Your task to perform on an android device: Open the calendar and show me this week's events Image 0: 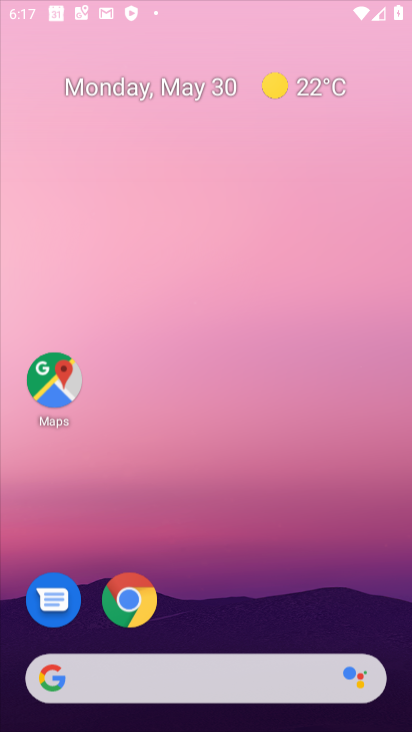
Step 0: press home button
Your task to perform on an android device: Open the calendar and show me this week's events Image 1: 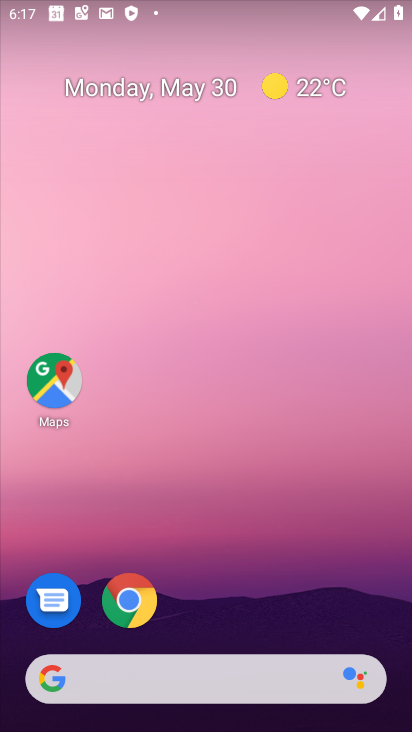
Step 1: drag from (236, 620) to (279, 110)
Your task to perform on an android device: Open the calendar and show me this week's events Image 2: 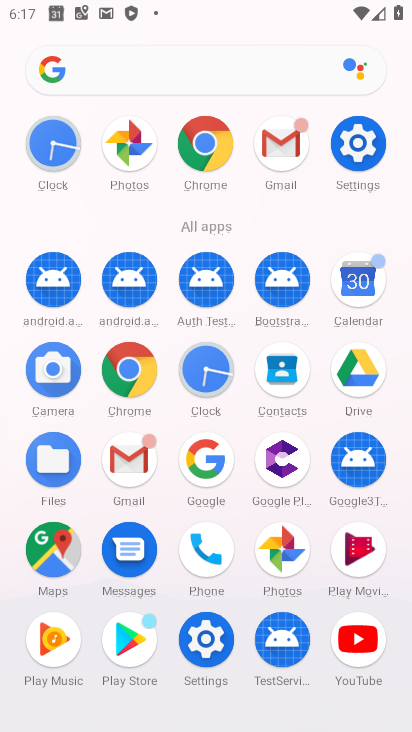
Step 2: click (361, 301)
Your task to perform on an android device: Open the calendar and show me this week's events Image 3: 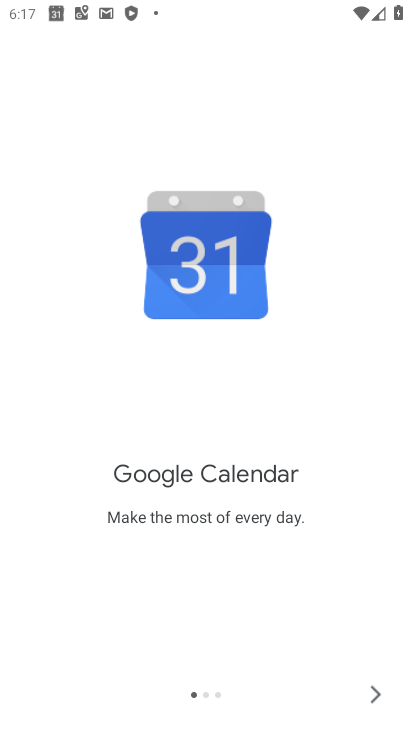
Step 3: click (379, 692)
Your task to perform on an android device: Open the calendar and show me this week's events Image 4: 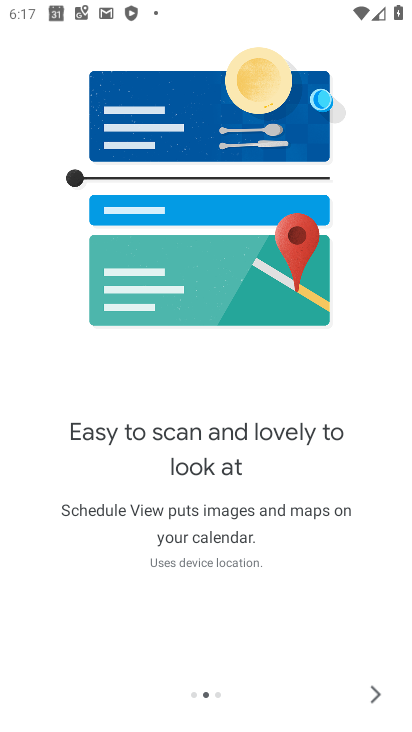
Step 4: click (381, 706)
Your task to perform on an android device: Open the calendar and show me this week's events Image 5: 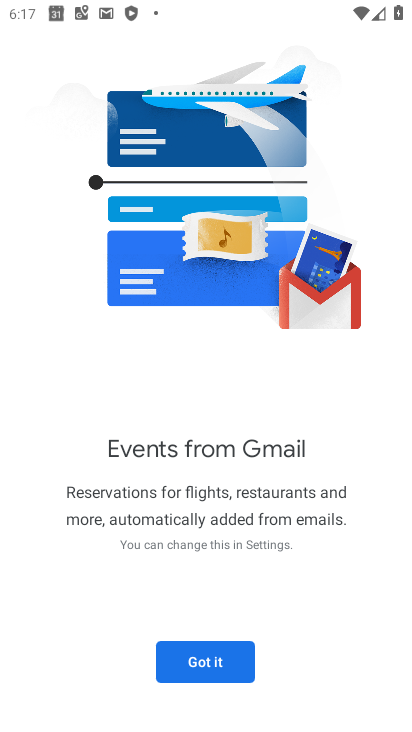
Step 5: click (186, 668)
Your task to perform on an android device: Open the calendar and show me this week's events Image 6: 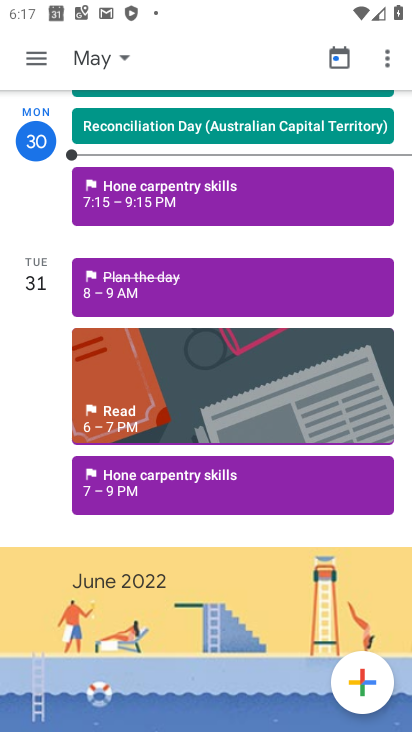
Step 6: task complete